Your task to perform on an android device: turn on wifi Image 0: 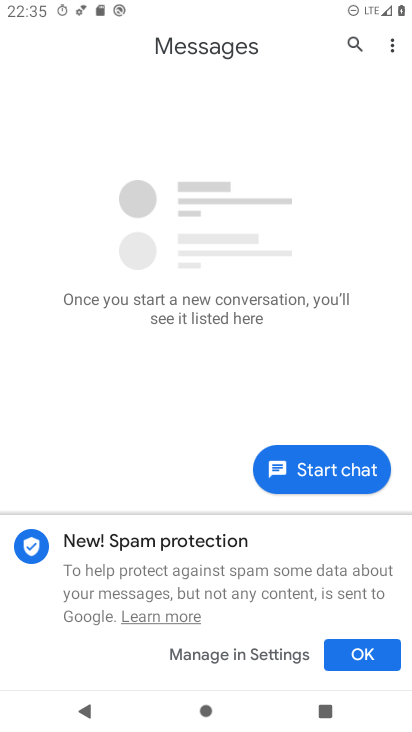
Step 0: press home button
Your task to perform on an android device: turn on wifi Image 1: 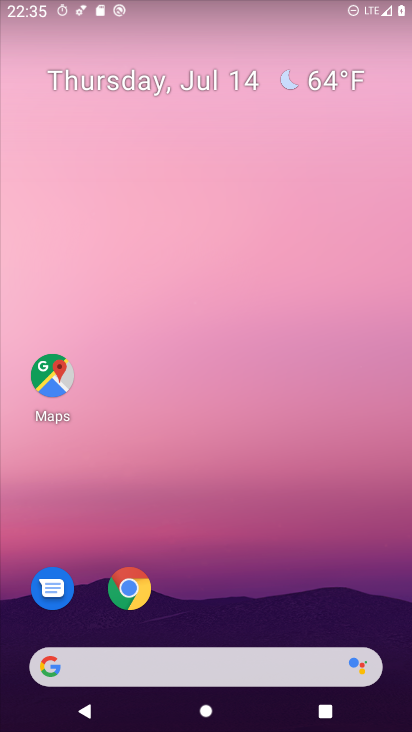
Step 1: drag from (310, 527) to (316, 127)
Your task to perform on an android device: turn on wifi Image 2: 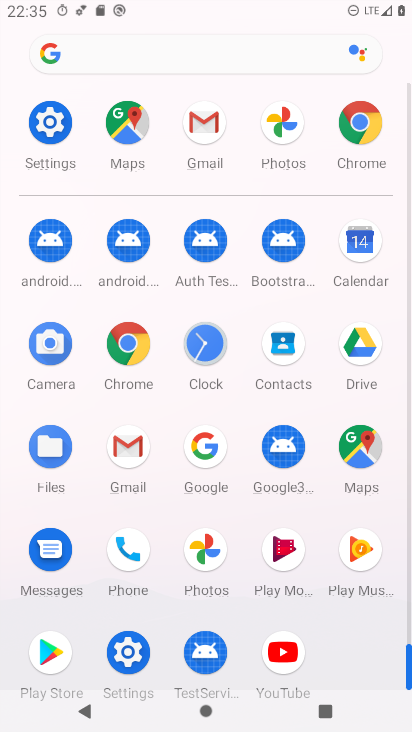
Step 2: click (51, 135)
Your task to perform on an android device: turn on wifi Image 3: 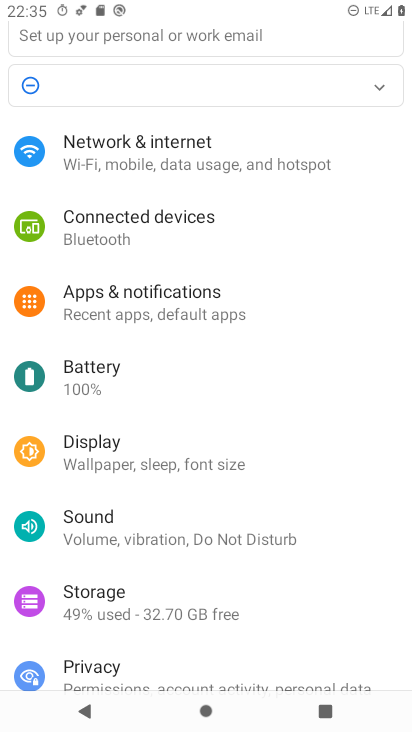
Step 3: drag from (333, 353) to (348, 220)
Your task to perform on an android device: turn on wifi Image 4: 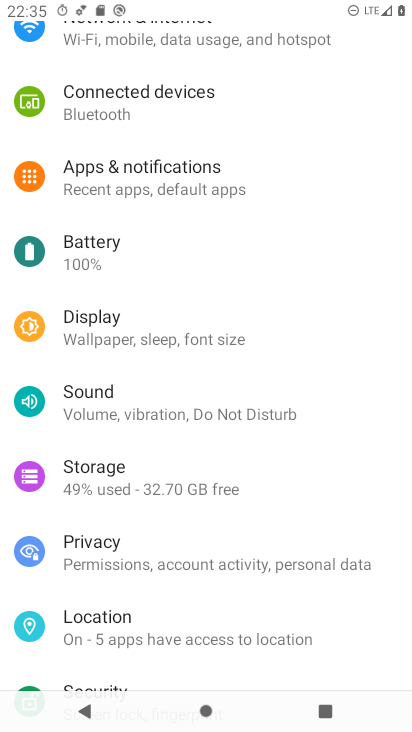
Step 4: drag from (335, 325) to (355, 214)
Your task to perform on an android device: turn on wifi Image 5: 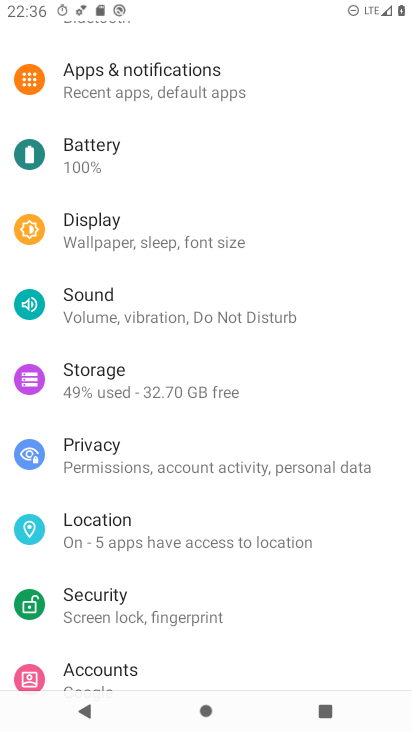
Step 5: drag from (328, 581) to (342, 435)
Your task to perform on an android device: turn on wifi Image 6: 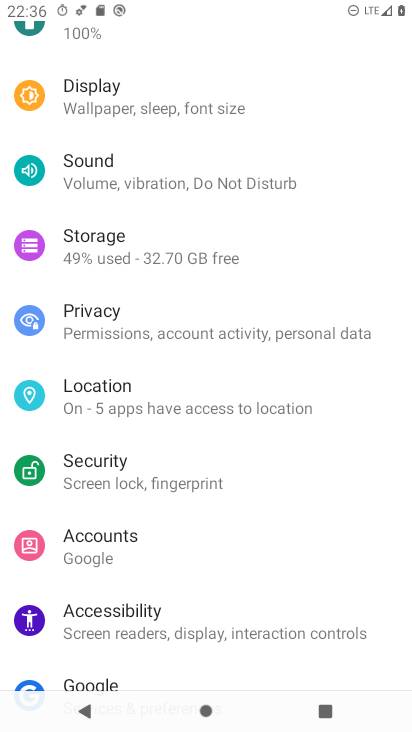
Step 6: drag from (350, 371) to (349, 447)
Your task to perform on an android device: turn on wifi Image 7: 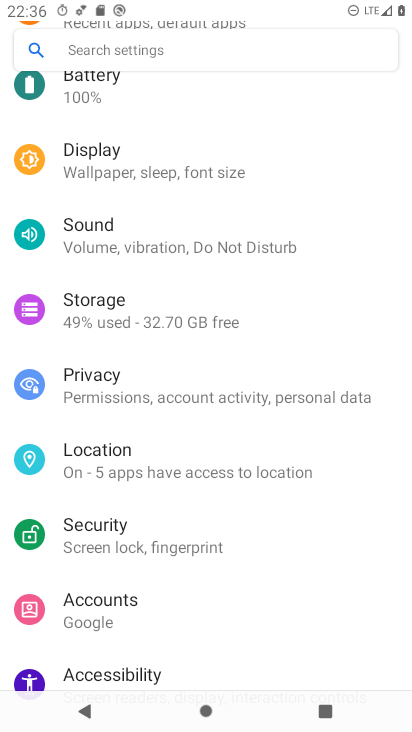
Step 7: drag from (347, 308) to (343, 415)
Your task to perform on an android device: turn on wifi Image 8: 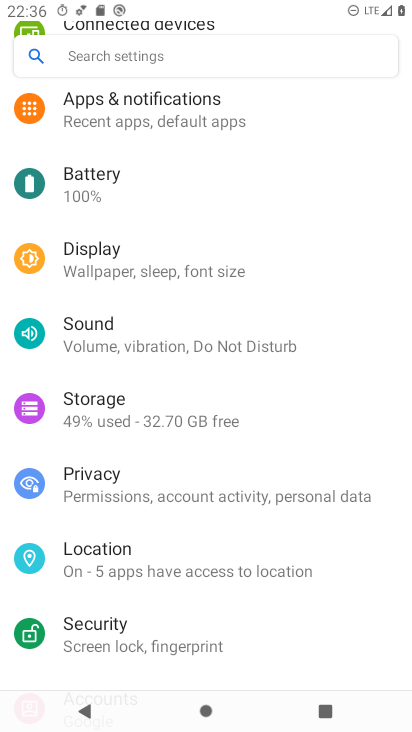
Step 8: drag from (369, 225) to (369, 318)
Your task to perform on an android device: turn on wifi Image 9: 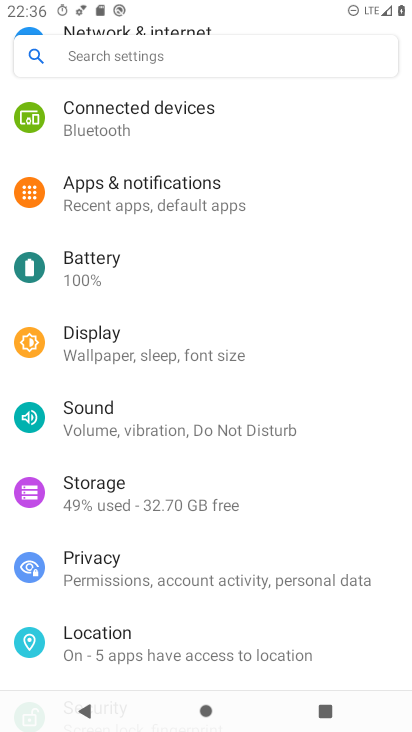
Step 9: drag from (349, 238) to (359, 335)
Your task to perform on an android device: turn on wifi Image 10: 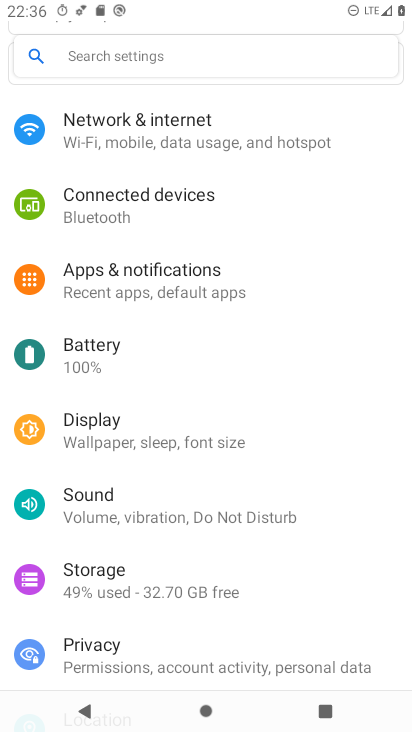
Step 10: drag from (352, 210) to (354, 300)
Your task to perform on an android device: turn on wifi Image 11: 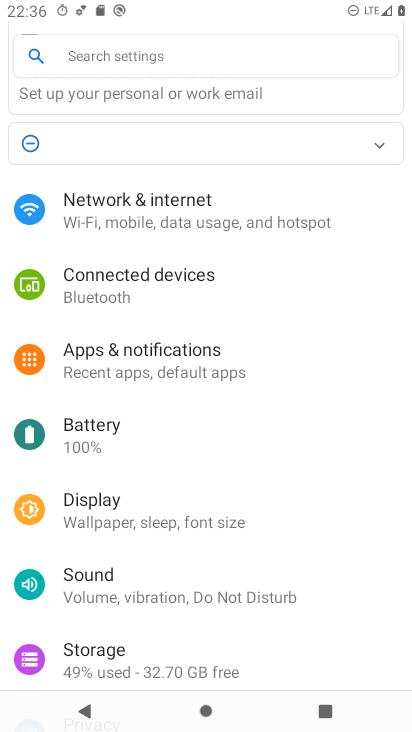
Step 11: drag from (355, 236) to (365, 371)
Your task to perform on an android device: turn on wifi Image 12: 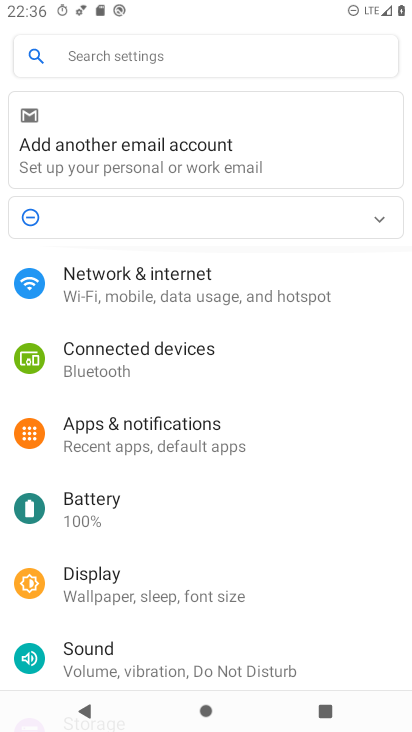
Step 12: click (314, 319)
Your task to perform on an android device: turn on wifi Image 13: 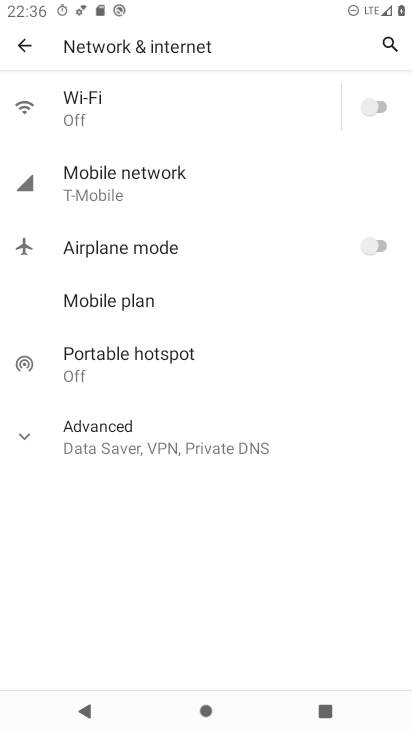
Step 13: click (376, 107)
Your task to perform on an android device: turn on wifi Image 14: 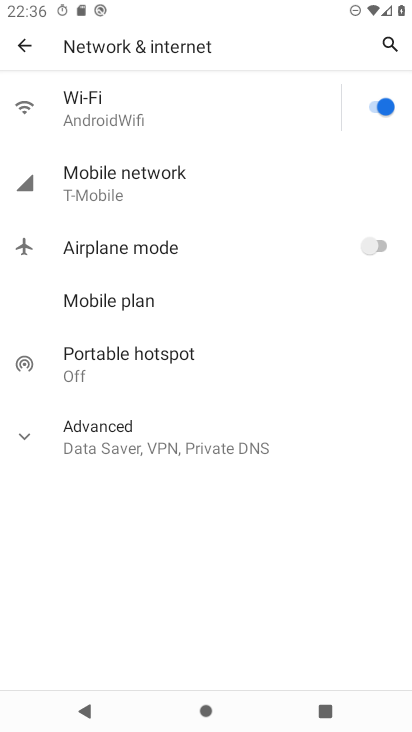
Step 14: task complete